Your task to perform on an android device: Open settings Image 0: 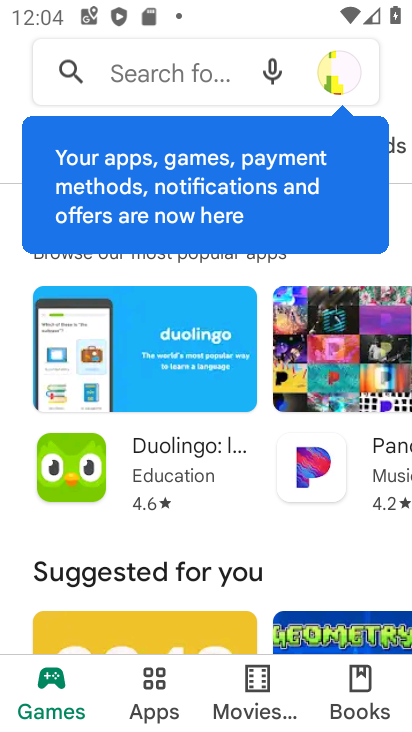
Step 0: press home button
Your task to perform on an android device: Open settings Image 1: 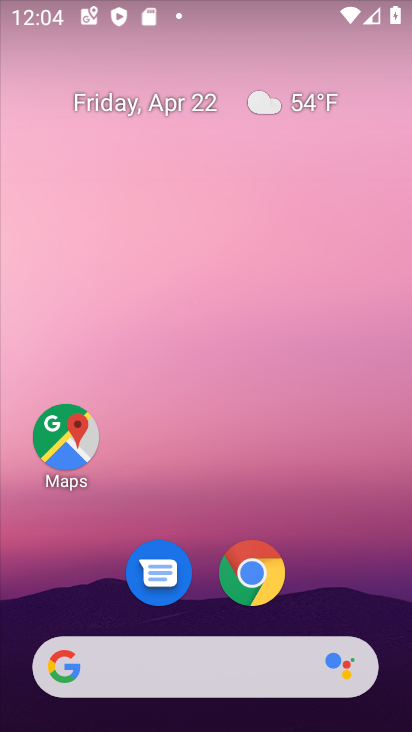
Step 1: drag from (384, 588) to (376, 127)
Your task to perform on an android device: Open settings Image 2: 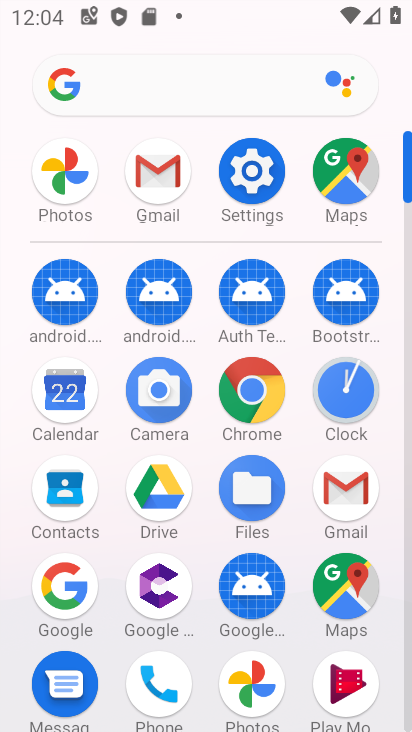
Step 2: click (262, 172)
Your task to perform on an android device: Open settings Image 3: 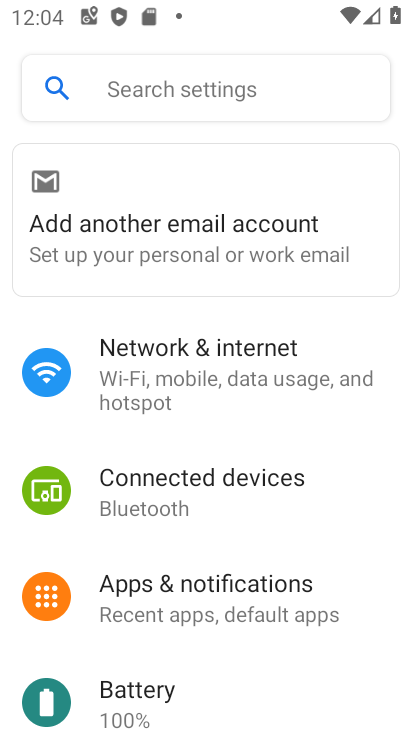
Step 3: task complete